Your task to perform on an android device: Go to settings Image 0: 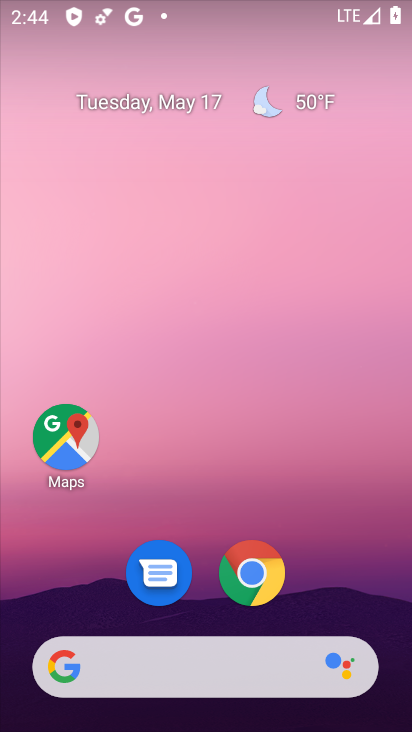
Step 0: drag from (361, 511) to (391, 2)
Your task to perform on an android device: Go to settings Image 1: 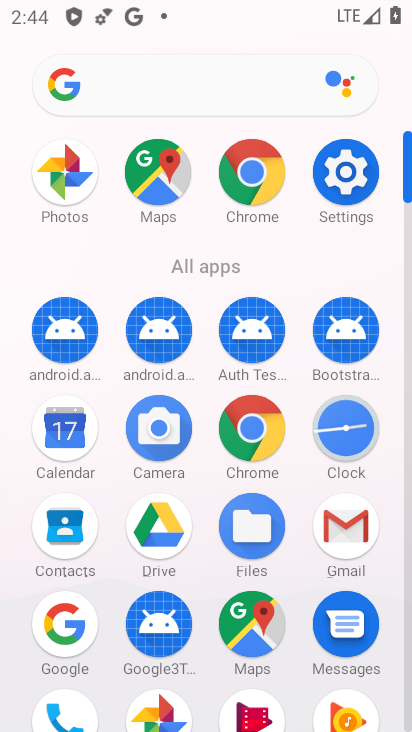
Step 1: drag from (281, 555) to (315, 395)
Your task to perform on an android device: Go to settings Image 2: 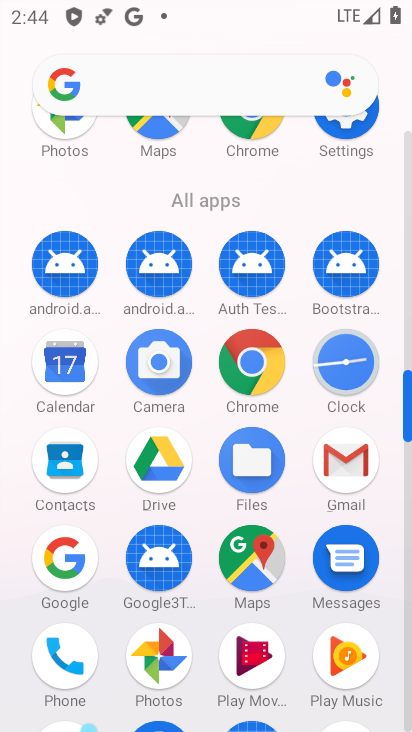
Step 2: drag from (308, 265) to (280, 532)
Your task to perform on an android device: Go to settings Image 3: 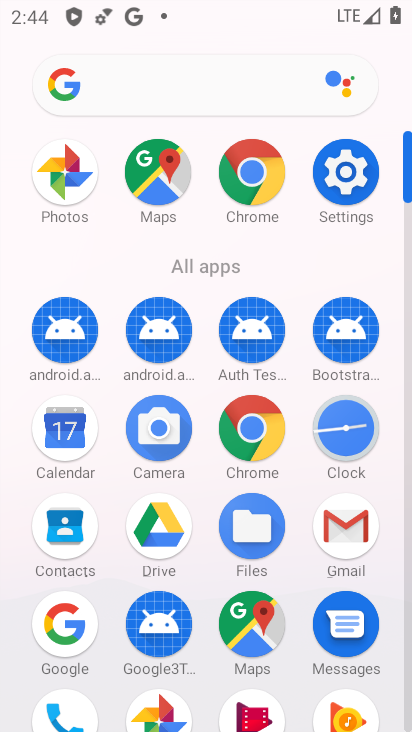
Step 3: click (350, 189)
Your task to perform on an android device: Go to settings Image 4: 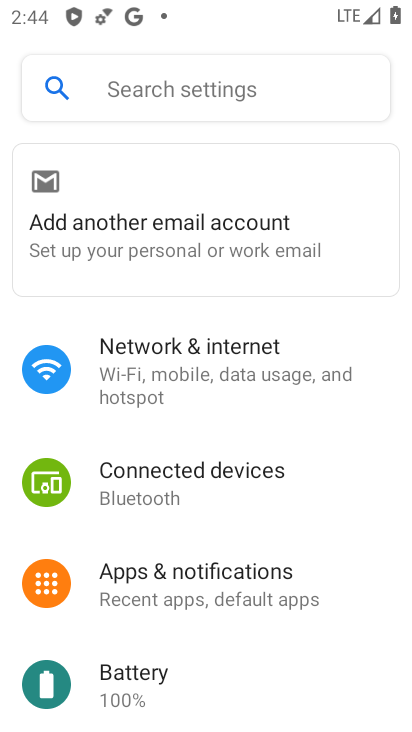
Step 4: task complete